Your task to perform on an android device: clear all cookies in the chrome app Image 0: 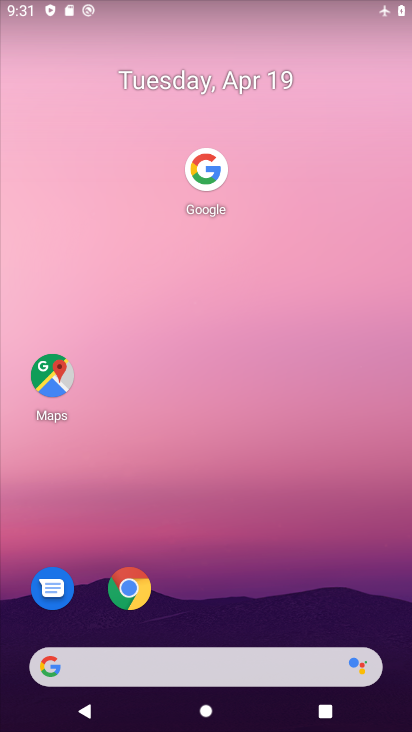
Step 0: drag from (192, 557) to (77, 102)
Your task to perform on an android device: clear all cookies in the chrome app Image 1: 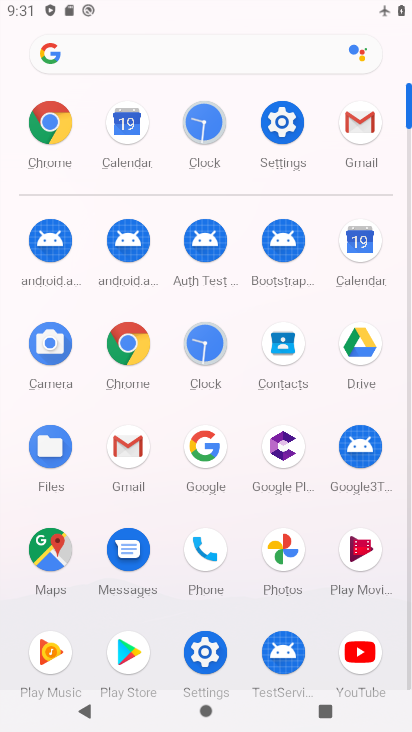
Step 1: click (122, 352)
Your task to perform on an android device: clear all cookies in the chrome app Image 2: 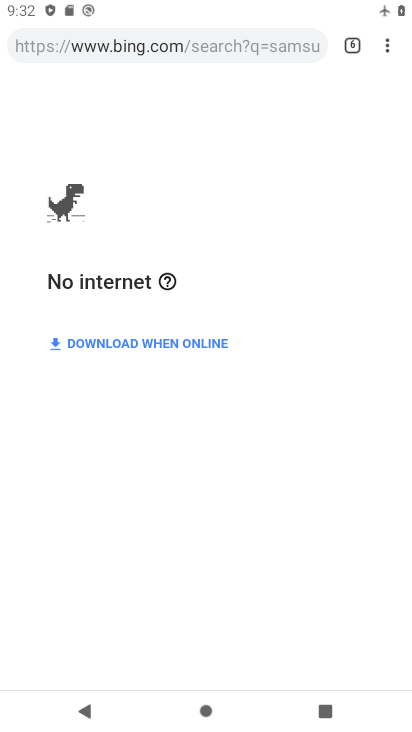
Step 2: click (385, 43)
Your task to perform on an android device: clear all cookies in the chrome app Image 3: 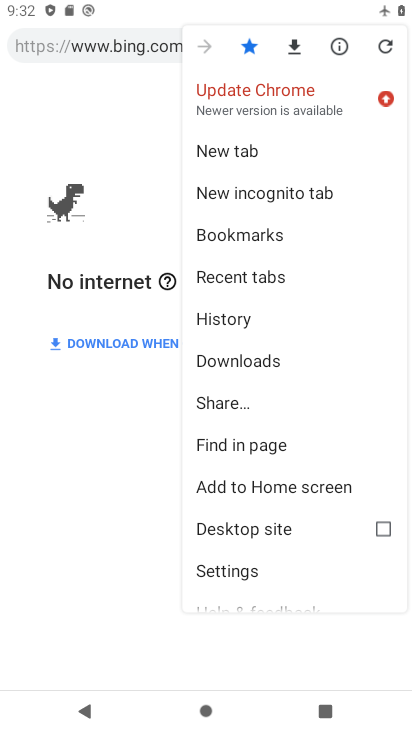
Step 3: click (225, 568)
Your task to perform on an android device: clear all cookies in the chrome app Image 4: 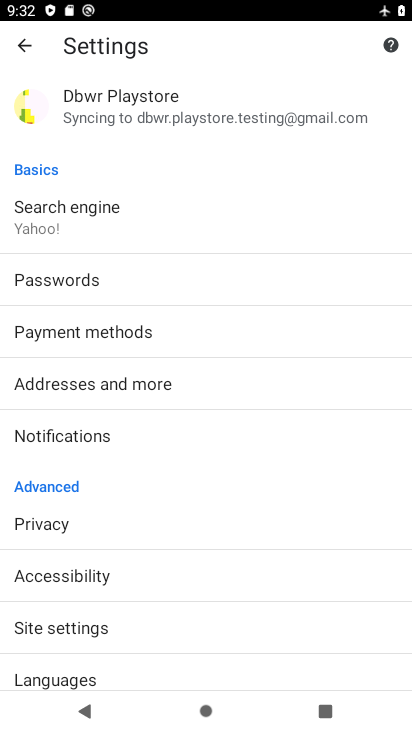
Step 4: click (38, 523)
Your task to perform on an android device: clear all cookies in the chrome app Image 5: 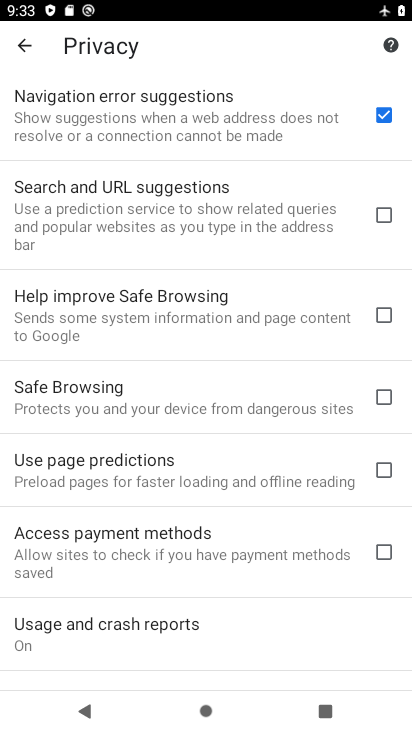
Step 5: drag from (249, 557) to (214, 229)
Your task to perform on an android device: clear all cookies in the chrome app Image 6: 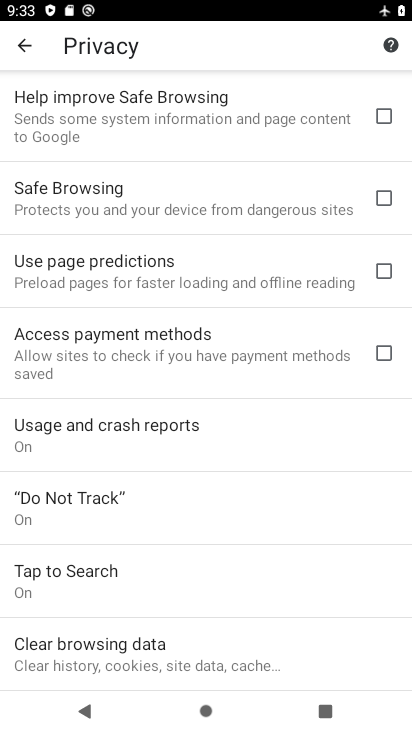
Step 6: click (71, 655)
Your task to perform on an android device: clear all cookies in the chrome app Image 7: 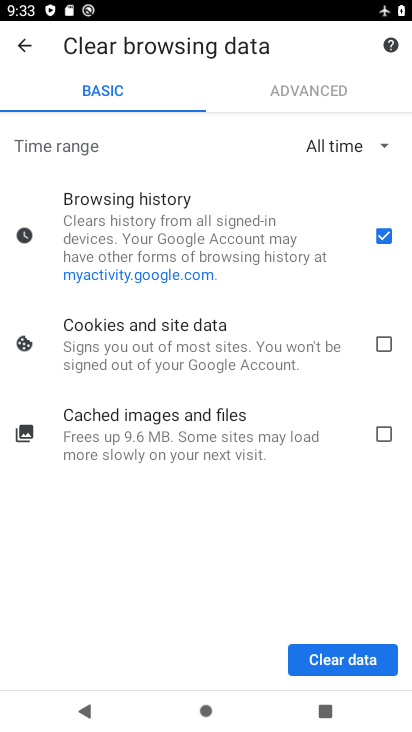
Step 7: click (389, 338)
Your task to perform on an android device: clear all cookies in the chrome app Image 8: 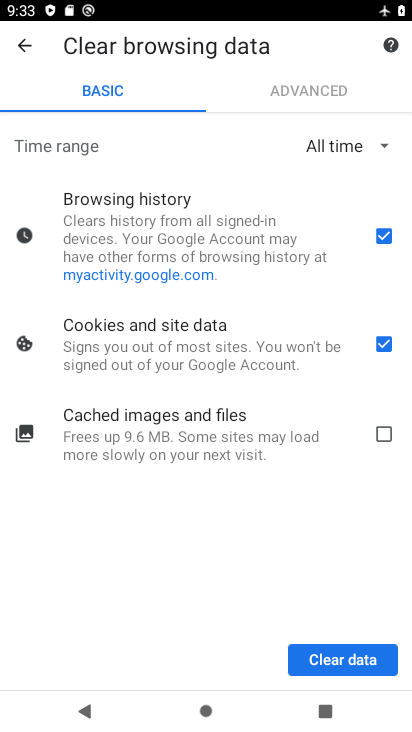
Step 8: click (381, 245)
Your task to perform on an android device: clear all cookies in the chrome app Image 9: 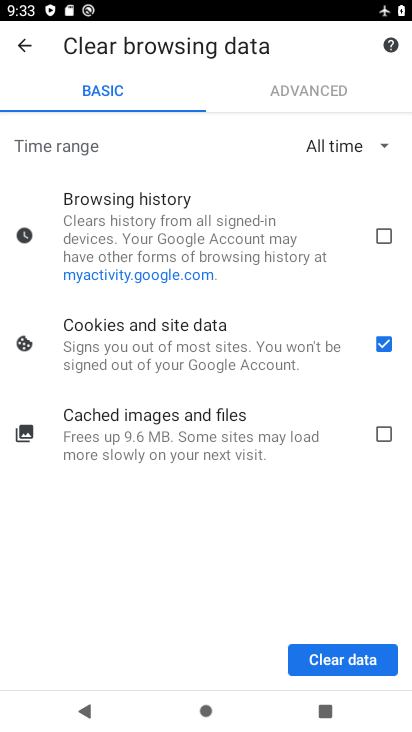
Step 9: click (335, 660)
Your task to perform on an android device: clear all cookies in the chrome app Image 10: 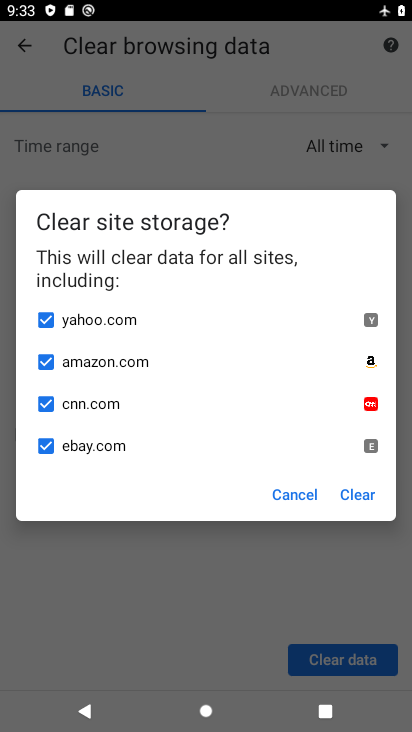
Step 10: click (365, 500)
Your task to perform on an android device: clear all cookies in the chrome app Image 11: 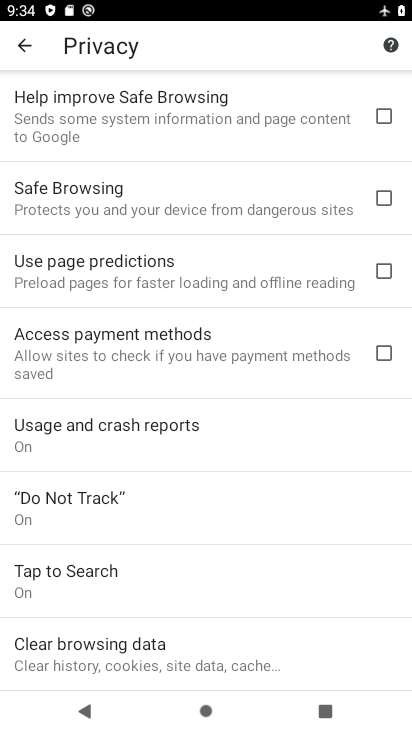
Step 11: task complete